Your task to perform on an android device: turn off sleep mode Image 0: 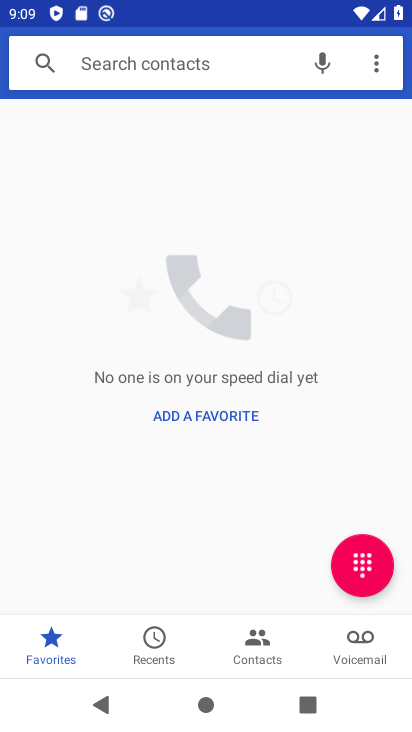
Step 0: press home button
Your task to perform on an android device: turn off sleep mode Image 1: 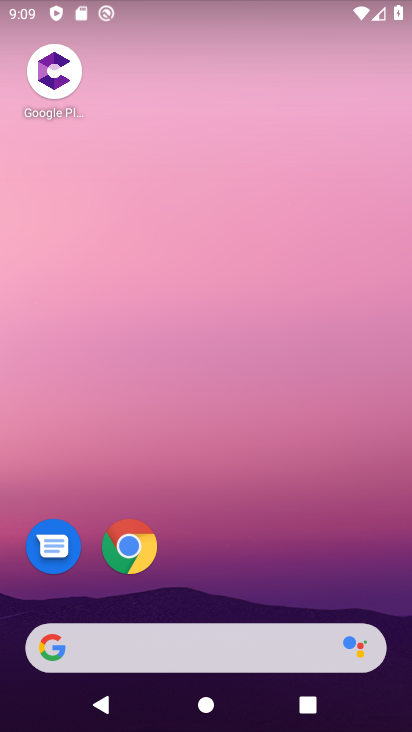
Step 1: drag from (233, 509) to (219, 10)
Your task to perform on an android device: turn off sleep mode Image 2: 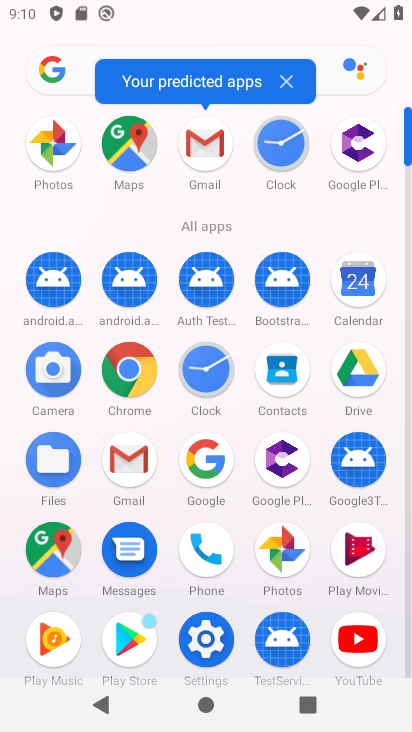
Step 2: click (207, 651)
Your task to perform on an android device: turn off sleep mode Image 3: 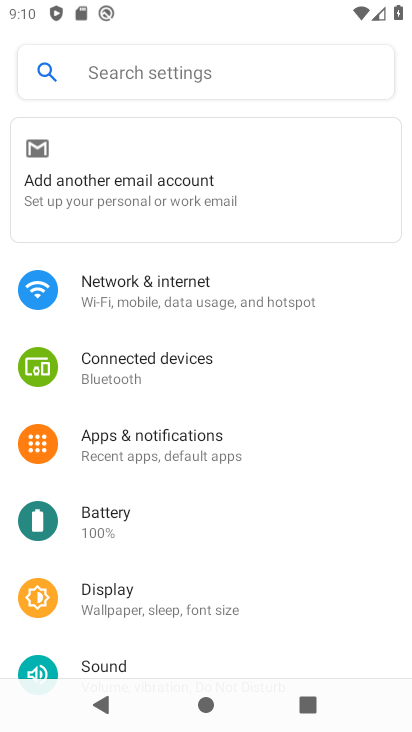
Step 3: click (121, 588)
Your task to perform on an android device: turn off sleep mode Image 4: 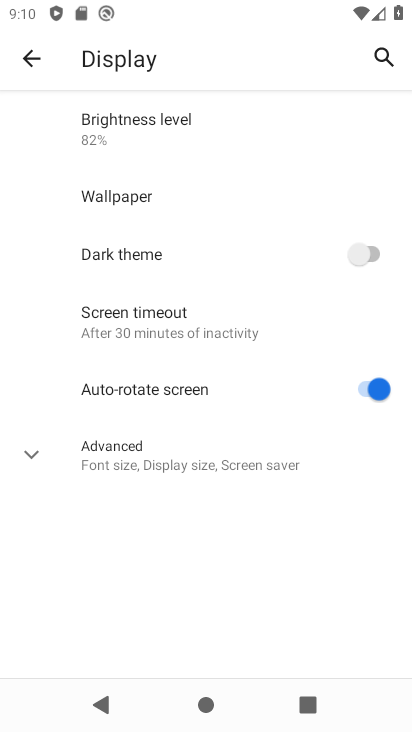
Step 4: task complete